Your task to perform on an android device: stop showing notifications on the lock screen Image 0: 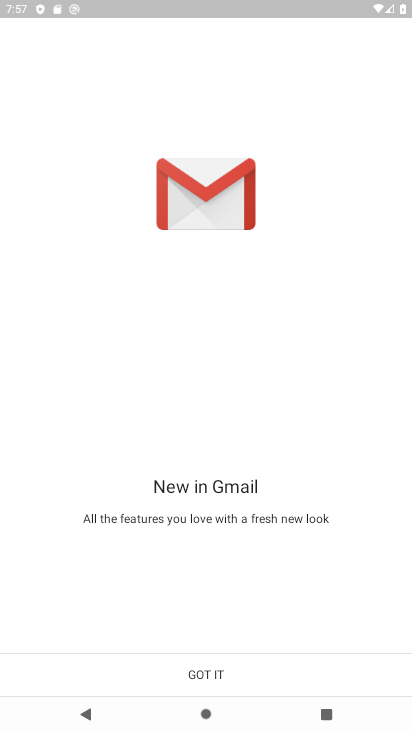
Step 0: press home button
Your task to perform on an android device: stop showing notifications on the lock screen Image 1: 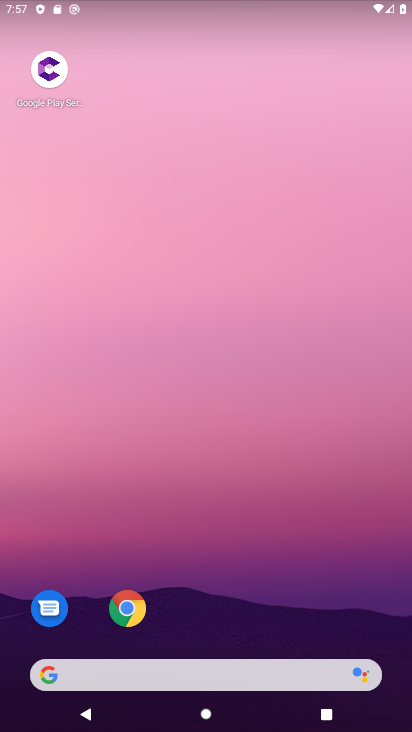
Step 1: drag from (220, 665) to (196, 168)
Your task to perform on an android device: stop showing notifications on the lock screen Image 2: 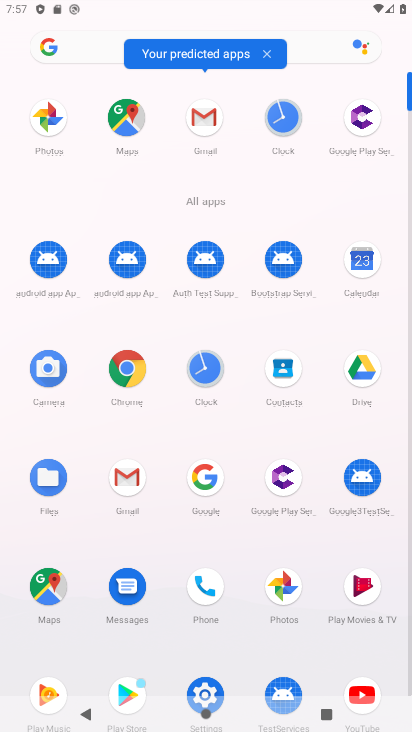
Step 2: click (213, 684)
Your task to perform on an android device: stop showing notifications on the lock screen Image 3: 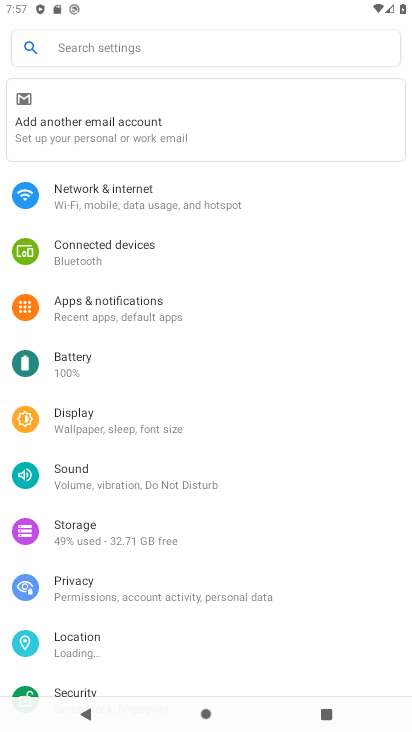
Step 3: click (138, 308)
Your task to perform on an android device: stop showing notifications on the lock screen Image 4: 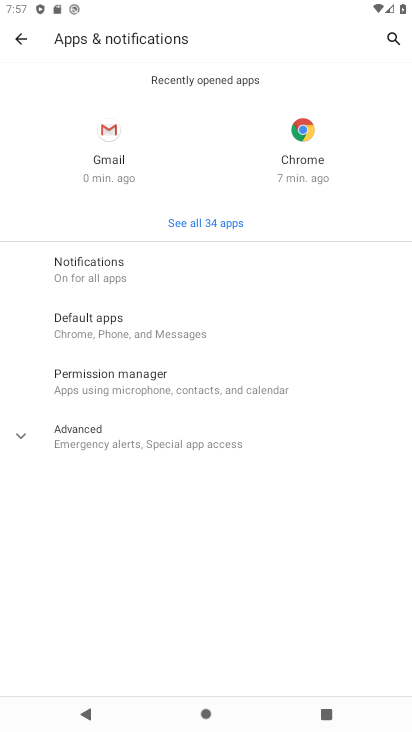
Step 4: click (117, 263)
Your task to perform on an android device: stop showing notifications on the lock screen Image 5: 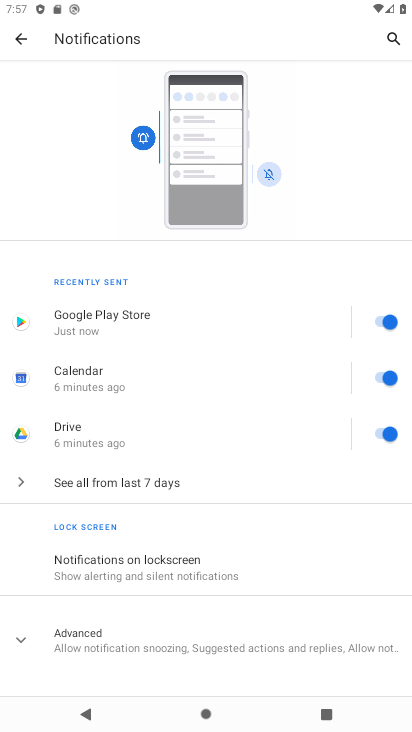
Step 5: click (167, 580)
Your task to perform on an android device: stop showing notifications on the lock screen Image 6: 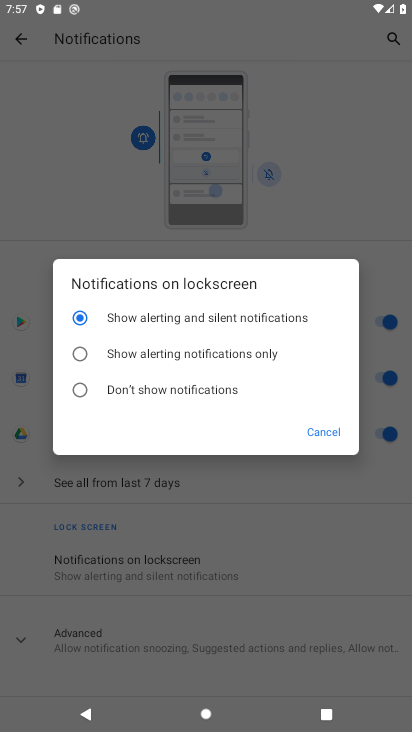
Step 6: click (123, 403)
Your task to perform on an android device: stop showing notifications on the lock screen Image 7: 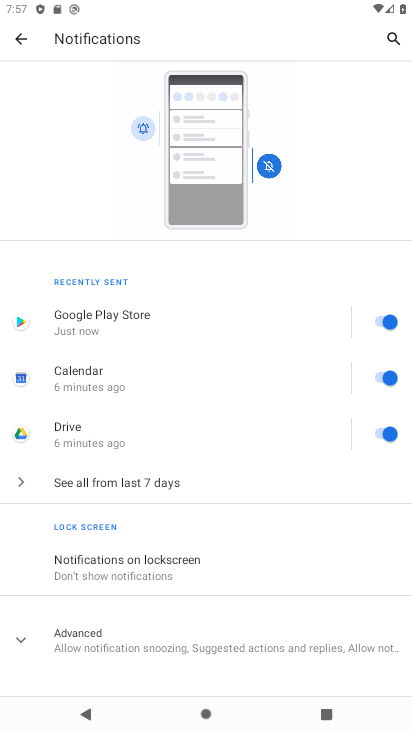
Step 7: task complete